Your task to perform on an android device: toggle airplane mode Image 0: 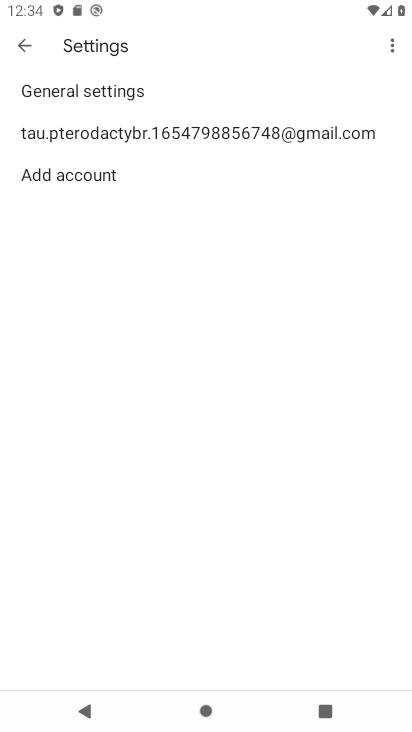
Step 0: drag from (244, 7) to (276, 731)
Your task to perform on an android device: toggle airplane mode Image 1: 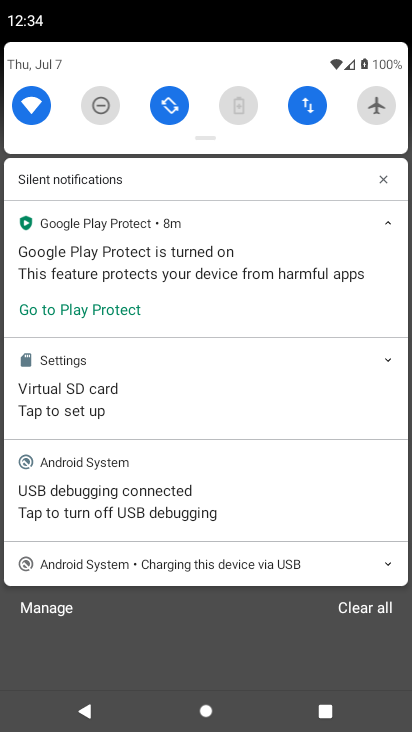
Step 1: drag from (241, 139) to (271, 584)
Your task to perform on an android device: toggle airplane mode Image 2: 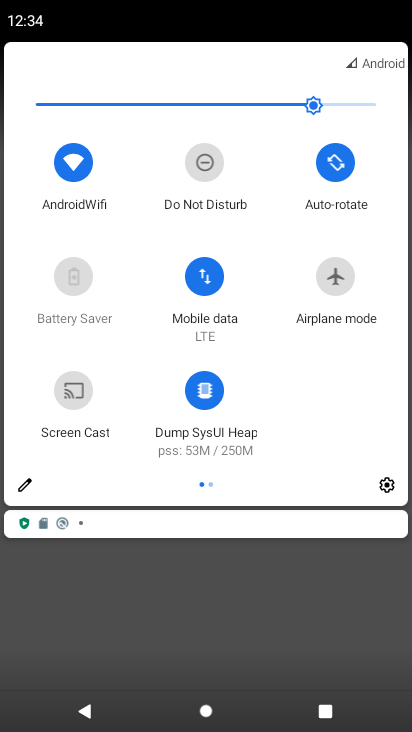
Step 2: click (337, 278)
Your task to perform on an android device: toggle airplane mode Image 3: 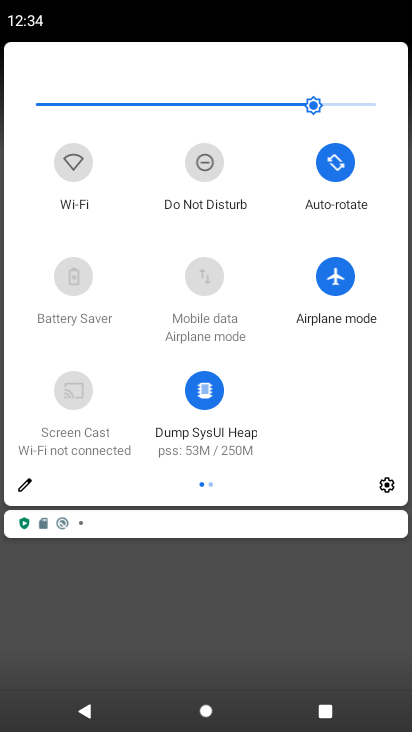
Step 3: task complete